Your task to perform on an android device: toggle wifi Image 0: 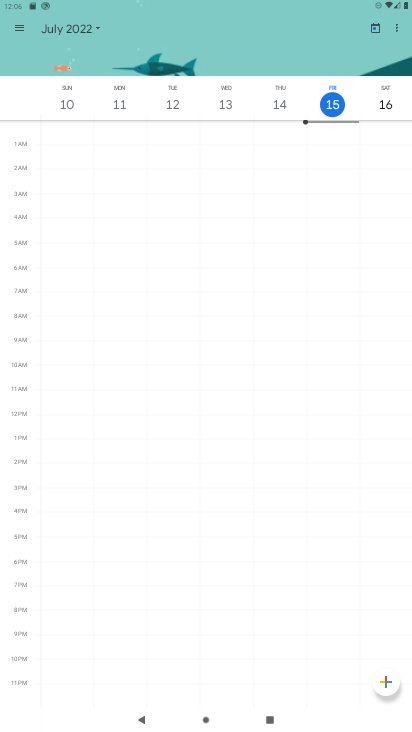
Step 0: press home button
Your task to perform on an android device: toggle wifi Image 1: 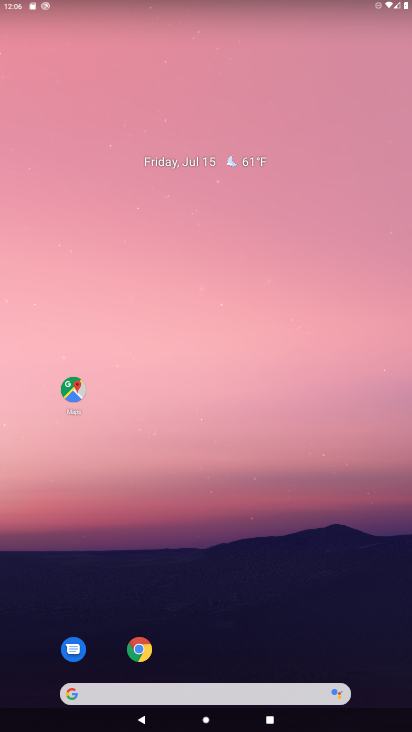
Step 1: drag from (230, 637) to (190, 5)
Your task to perform on an android device: toggle wifi Image 2: 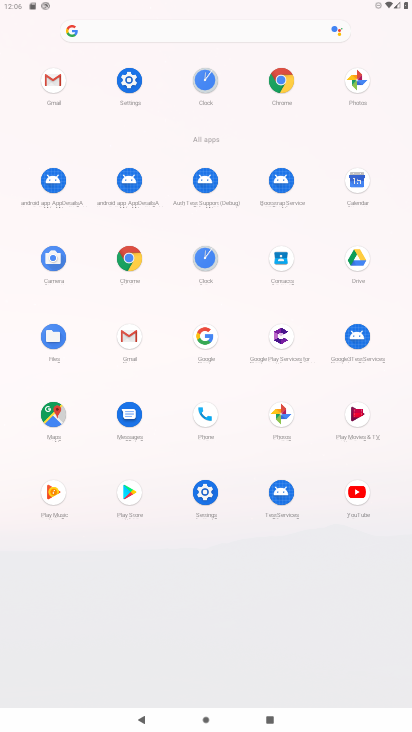
Step 2: click (123, 83)
Your task to perform on an android device: toggle wifi Image 3: 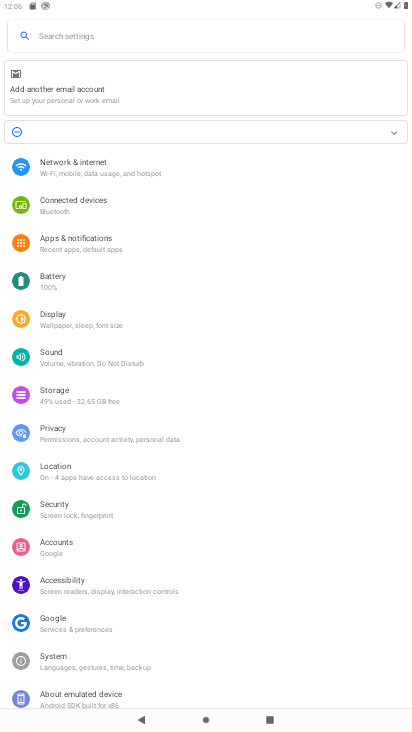
Step 3: click (127, 170)
Your task to perform on an android device: toggle wifi Image 4: 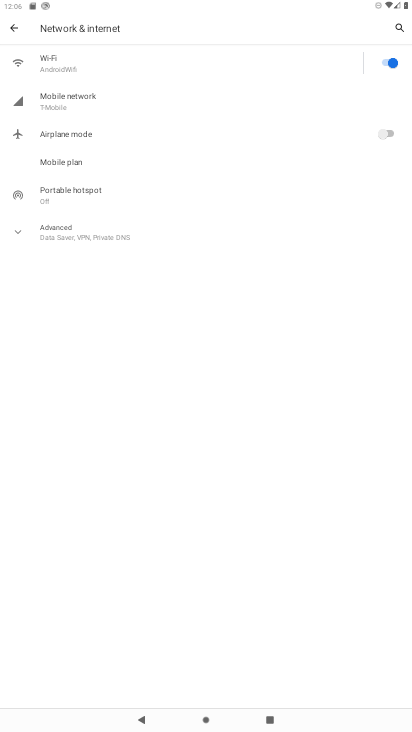
Step 4: click (390, 63)
Your task to perform on an android device: toggle wifi Image 5: 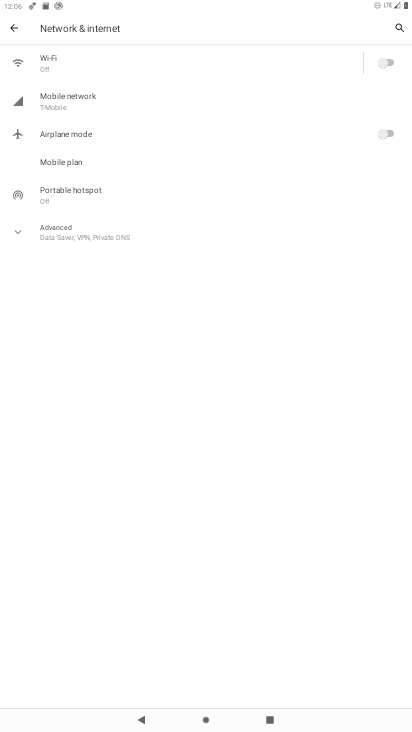
Step 5: task complete